Your task to perform on an android device: turn off sleep mode Image 0: 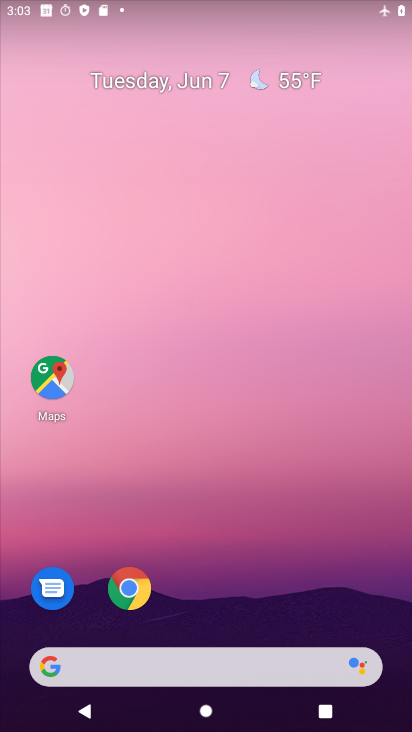
Step 0: press home button
Your task to perform on an android device: turn off sleep mode Image 1: 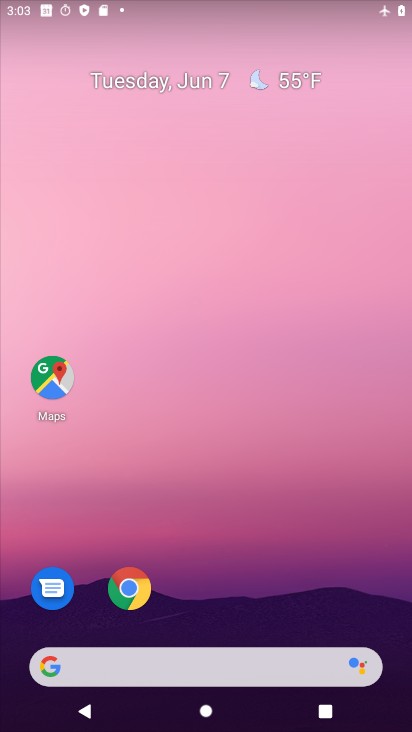
Step 1: drag from (228, 621) to (258, 130)
Your task to perform on an android device: turn off sleep mode Image 2: 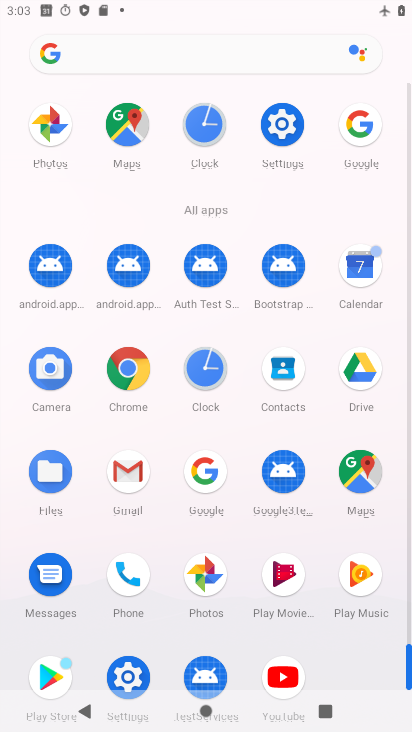
Step 2: click (281, 138)
Your task to perform on an android device: turn off sleep mode Image 3: 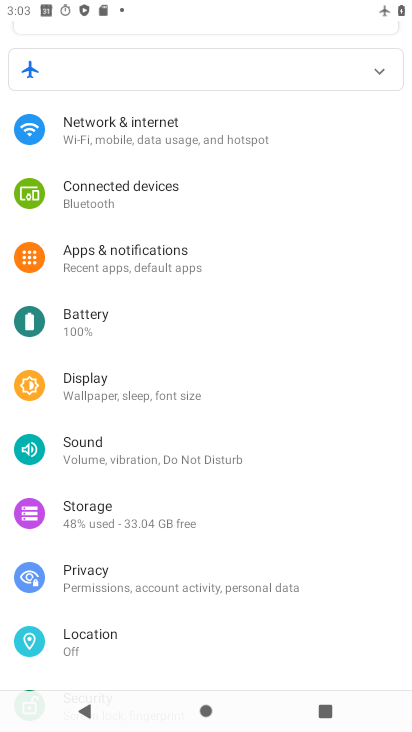
Step 3: click (101, 405)
Your task to perform on an android device: turn off sleep mode Image 4: 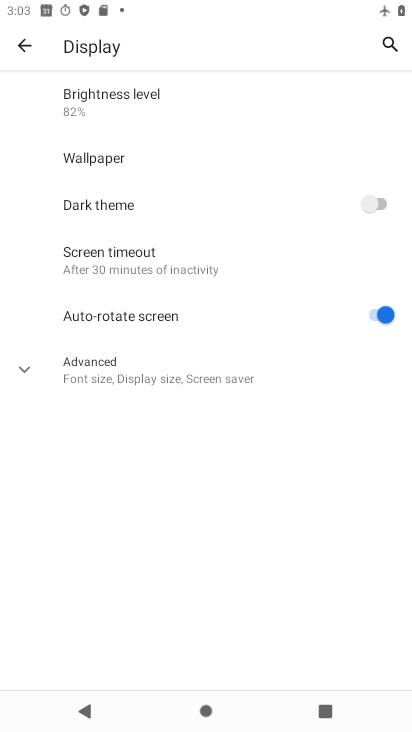
Step 4: task complete